Your task to perform on an android device: Turn off the flashlight Image 0: 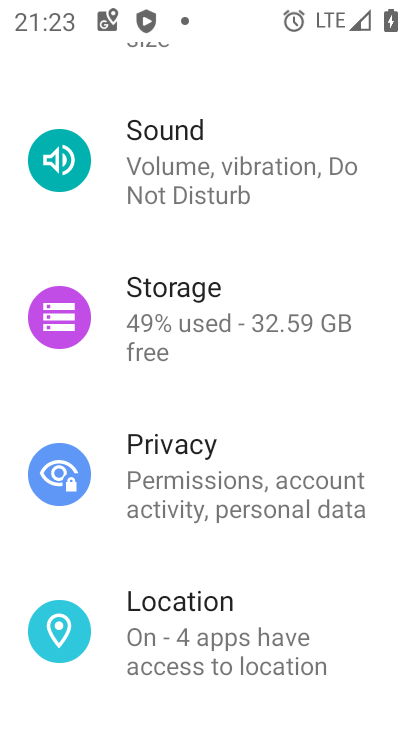
Step 0: drag from (245, 533) to (230, 226)
Your task to perform on an android device: Turn off the flashlight Image 1: 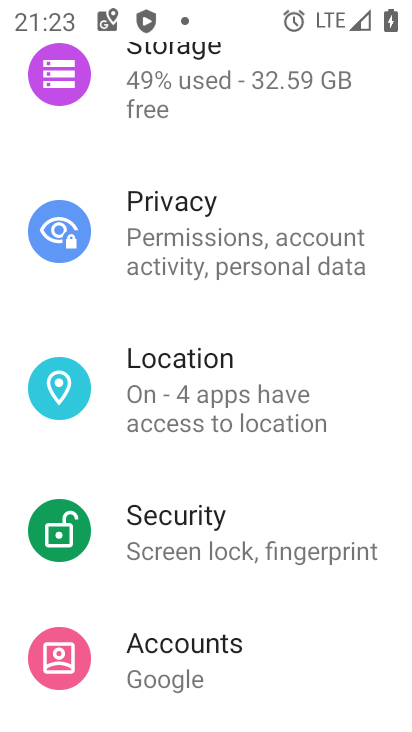
Step 1: task complete